Your task to perform on an android device: Turn off the flashlight Image 0: 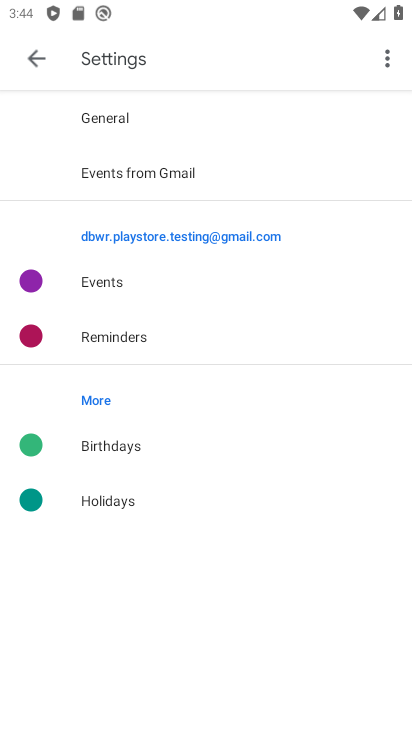
Step 0: press home button
Your task to perform on an android device: Turn off the flashlight Image 1: 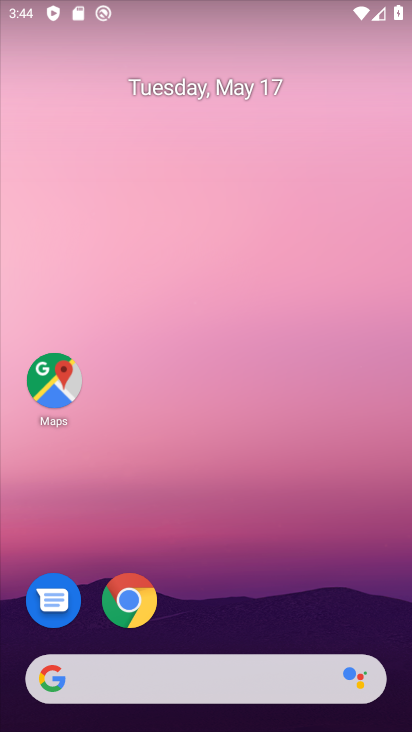
Step 1: drag from (212, 625) to (240, 111)
Your task to perform on an android device: Turn off the flashlight Image 2: 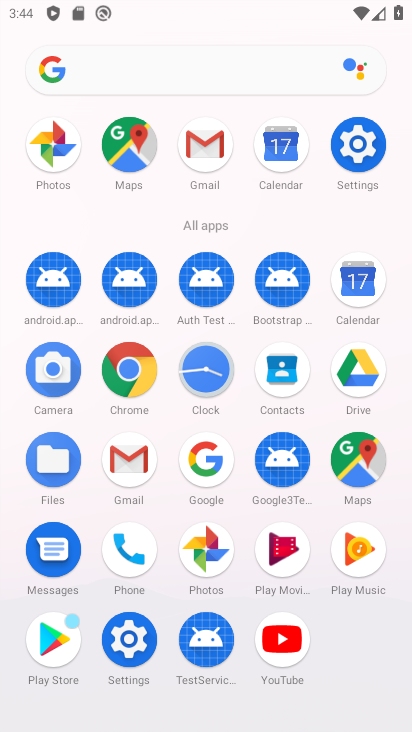
Step 2: click (348, 139)
Your task to perform on an android device: Turn off the flashlight Image 3: 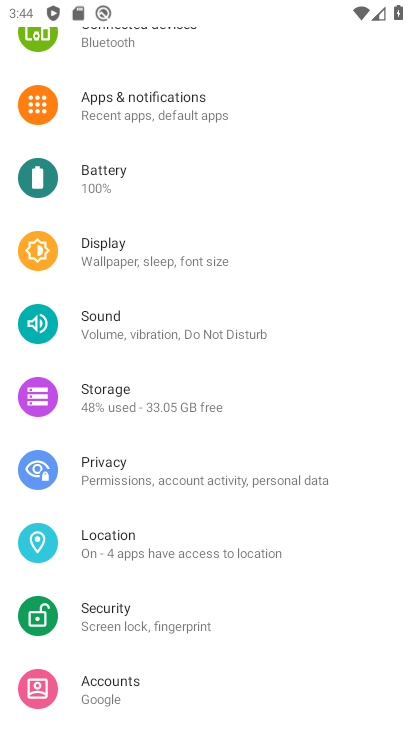
Step 3: drag from (201, 74) to (181, 470)
Your task to perform on an android device: Turn off the flashlight Image 4: 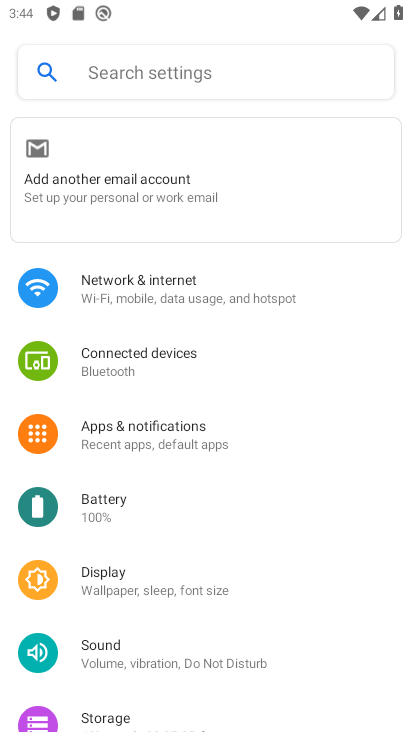
Step 4: click (207, 70)
Your task to perform on an android device: Turn off the flashlight Image 5: 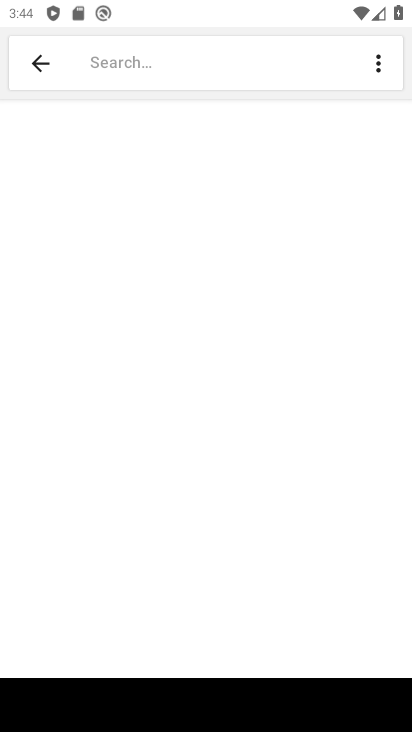
Step 5: type ""
Your task to perform on an android device: Turn off the flashlight Image 6: 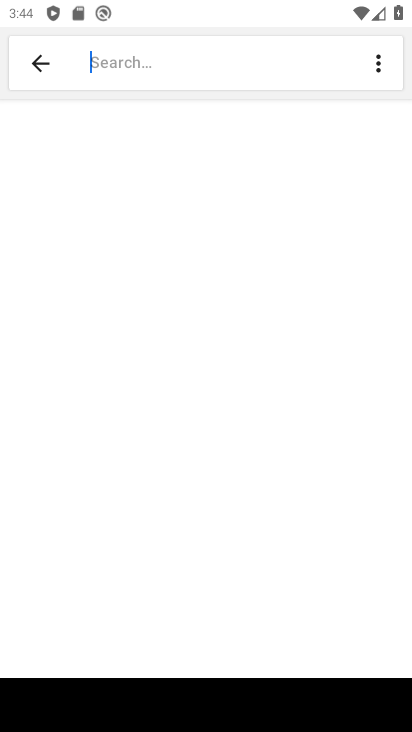
Step 6: type "flashlight"
Your task to perform on an android device: Turn off the flashlight Image 7: 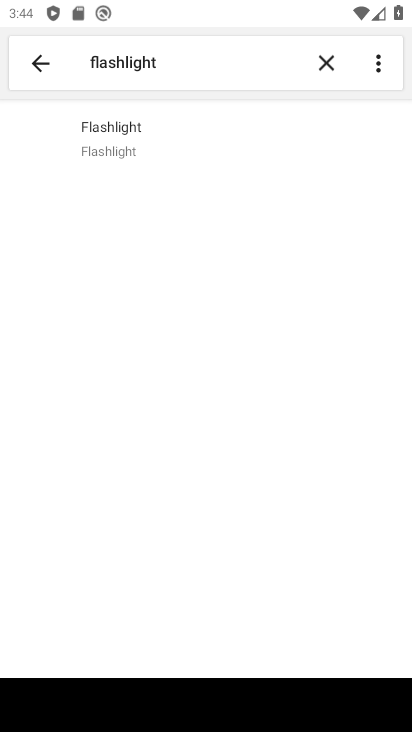
Step 7: click (105, 140)
Your task to perform on an android device: Turn off the flashlight Image 8: 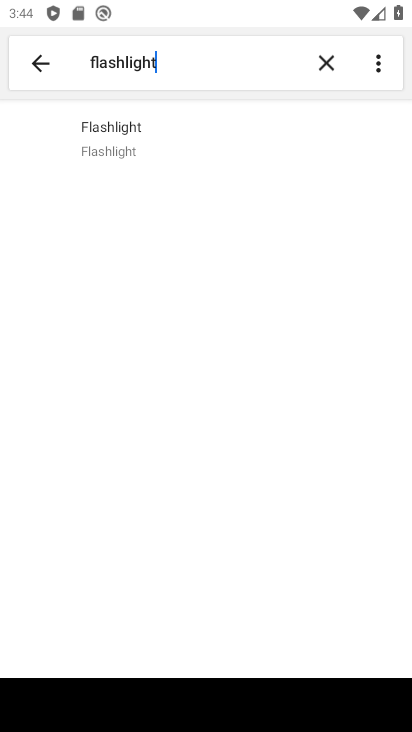
Step 8: click (104, 140)
Your task to perform on an android device: Turn off the flashlight Image 9: 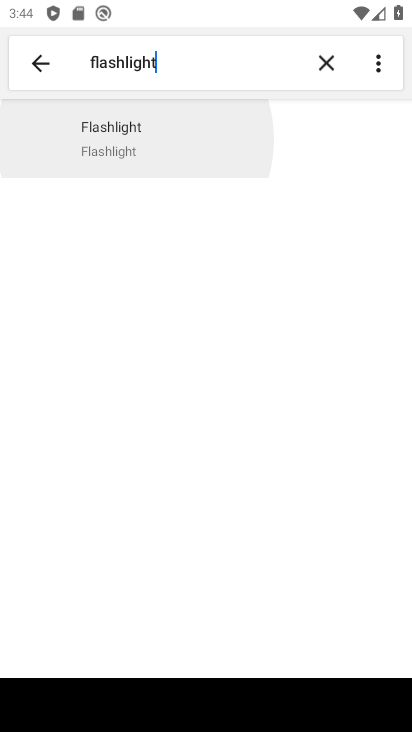
Step 9: click (103, 142)
Your task to perform on an android device: Turn off the flashlight Image 10: 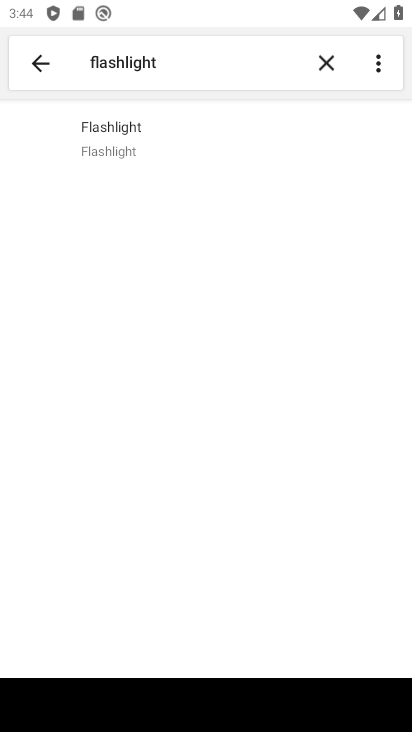
Step 10: task complete